Your task to perform on an android device: open device folders in google photos Image 0: 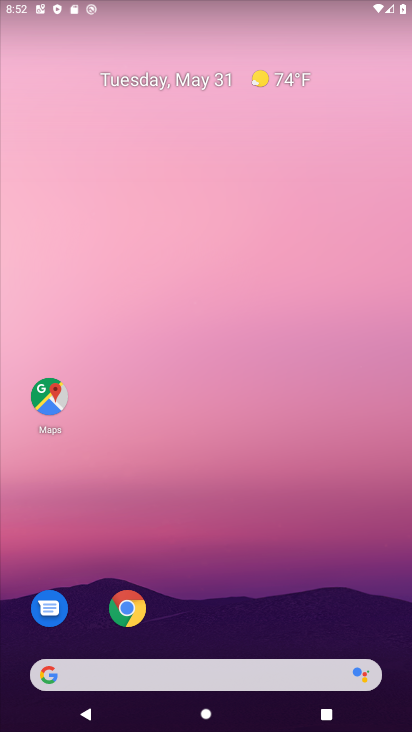
Step 0: drag from (224, 636) to (135, 265)
Your task to perform on an android device: open device folders in google photos Image 1: 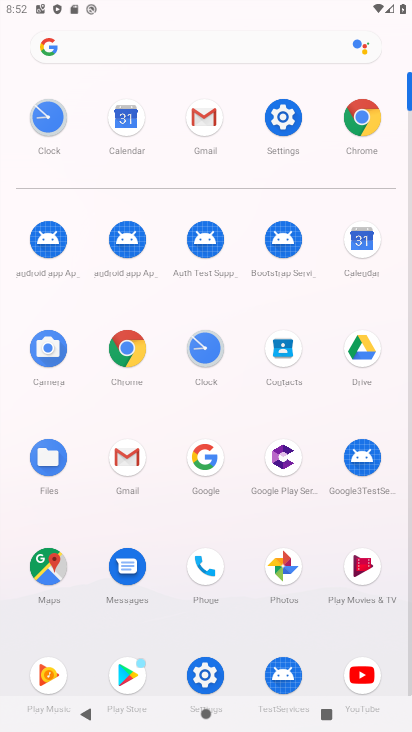
Step 1: click (288, 573)
Your task to perform on an android device: open device folders in google photos Image 2: 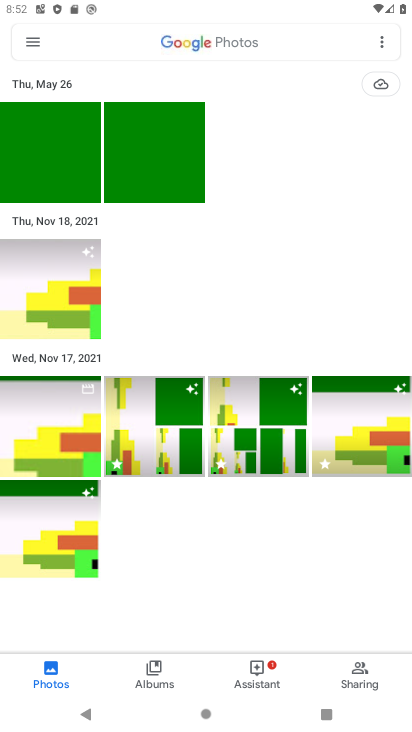
Step 2: click (29, 40)
Your task to perform on an android device: open device folders in google photos Image 3: 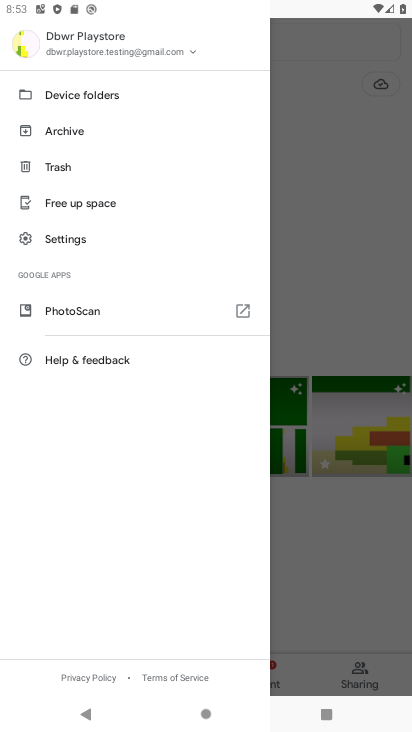
Step 3: click (72, 89)
Your task to perform on an android device: open device folders in google photos Image 4: 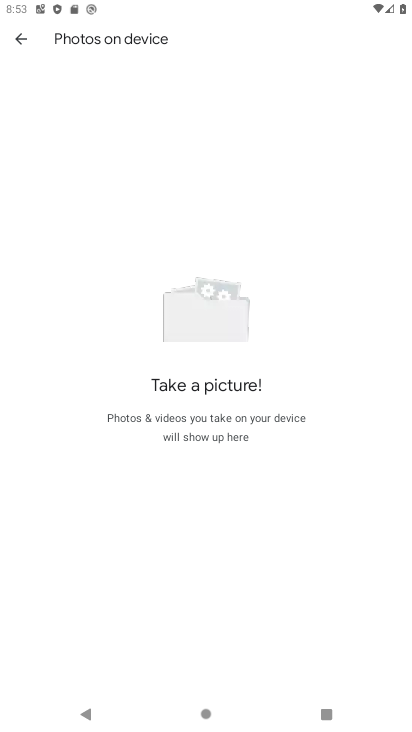
Step 4: task complete